Your task to perform on an android device: Open calendar and show me the second week of next month Image 0: 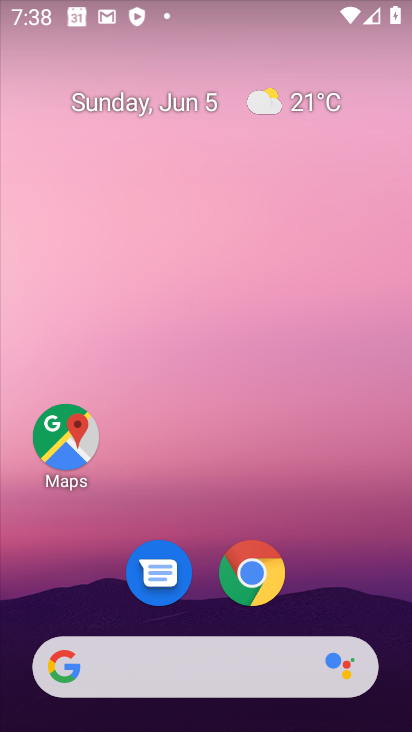
Step 0: drag from (237, 600) to (256, 276)
Your task to perform on an android device: Open calendar and show me the second week of next month Image 1: 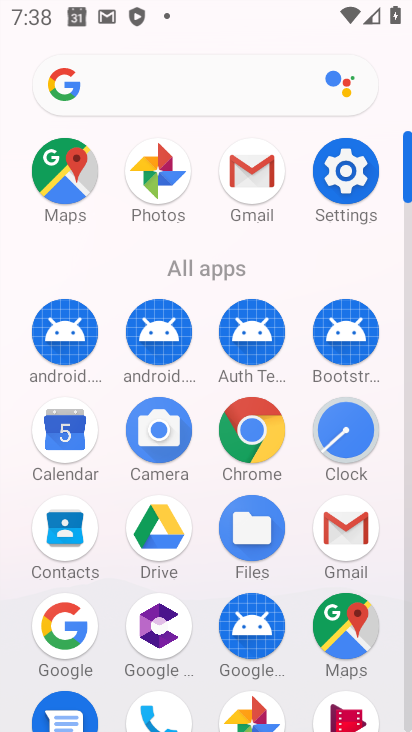
Step 1: click (75, 423)
Your task to perform on an android device: Open calendar and show me the second week of next month Image 2: 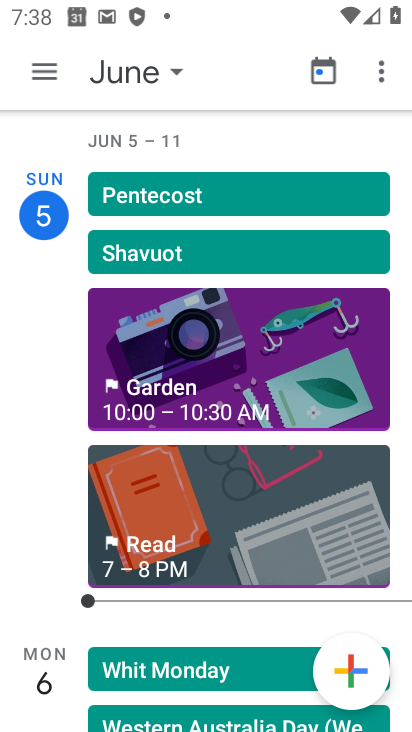
Step 2: click (43, 76)
Your task to perform on an android device: Open calendar and show me the second week of next month Image 3: 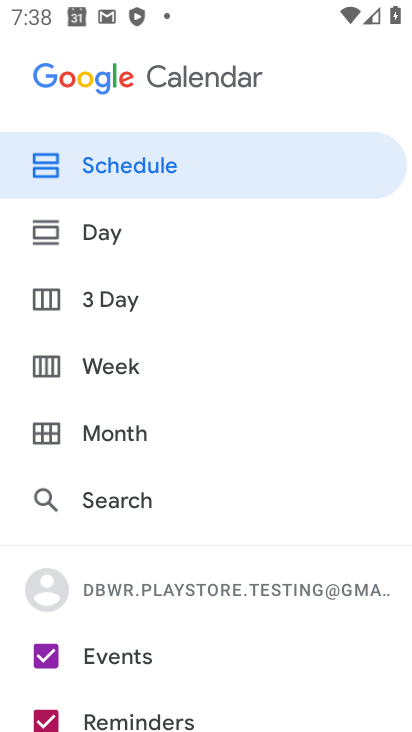
Step 3: click (129, 418)
Your task to perform on an android device: Open calendar and show me the second week of next month Image 4: 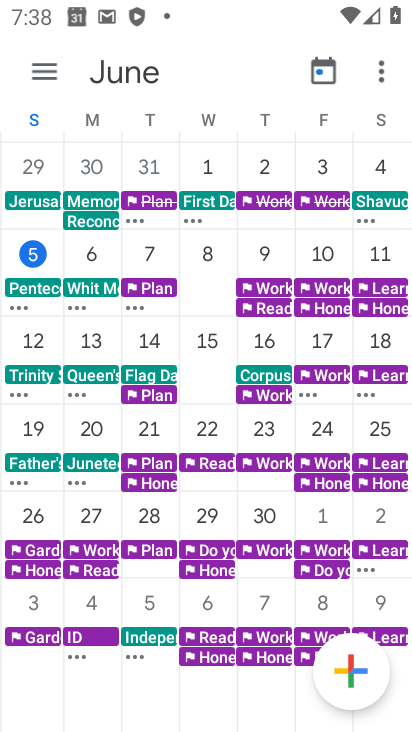
Step 4: task complete